Your task to perform on an android device: Open my contact list Image 0: 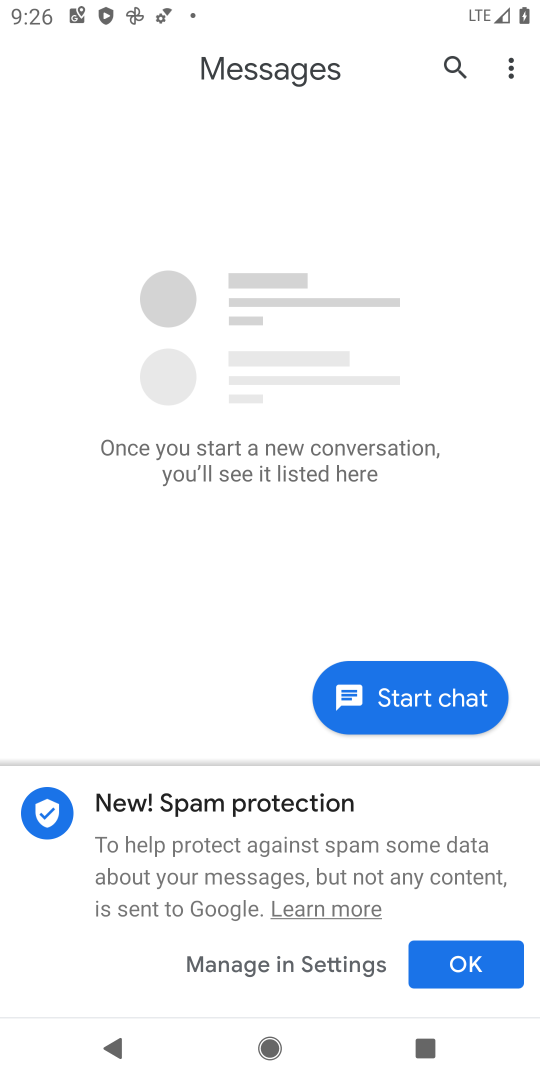
Step 0: press home button
Your task to perform on an android device: Open my contact list Image 1: 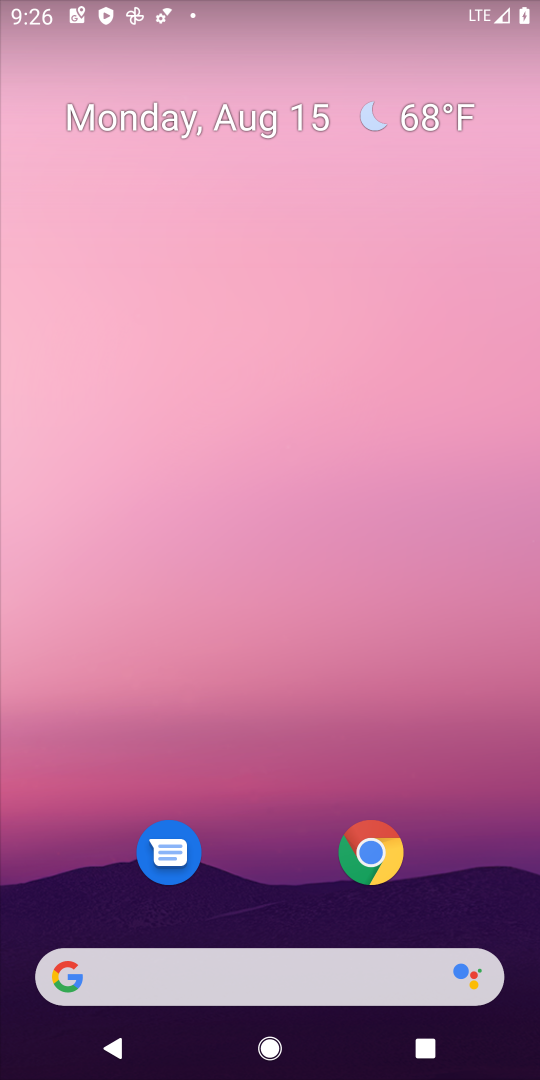
Step 1: drag from (198, 976) to (261, 110)
Your task to perform on an android device: Open my contact list Image 2: 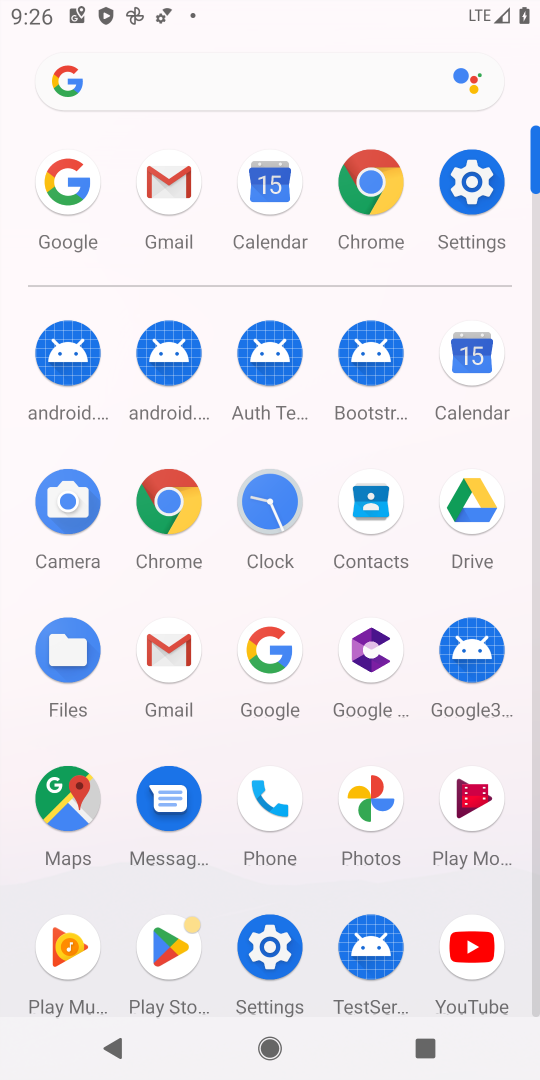
Step 2: click (371, 500)
Your task to perform on an android device: Open my contact list Image 3: 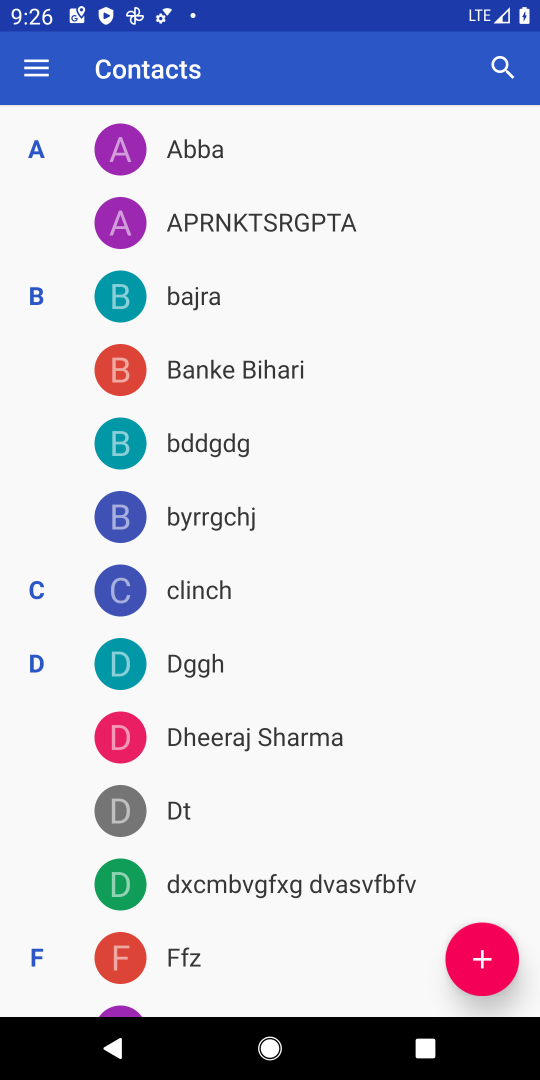
Step 3: task complete